Your task to perform on an android device: turn pop-ups off in chrome Image 0: 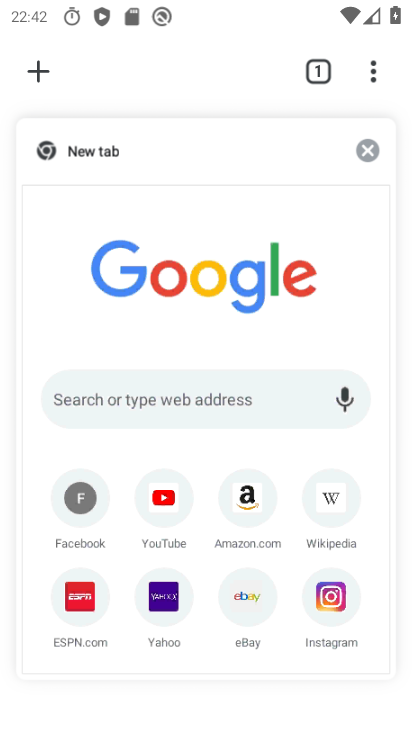
Step 0: press home button
Your task to perform on an android device: turn pop-ups off in chrome Image 1: 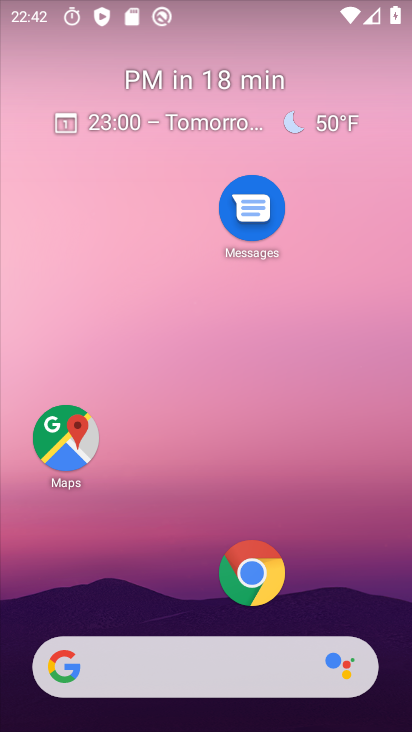
Step 1: click (263, 571)
Your task to perform on an android device: turn pop-ups off in chrome Image 2: 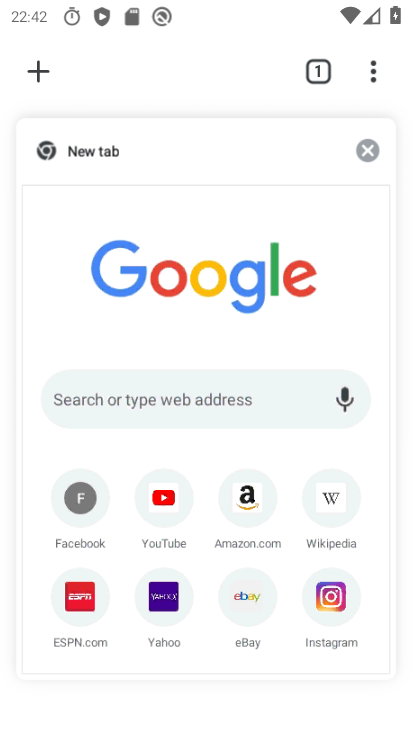
Step 2: press back button
Your task to perform on an android device: turn pop-ups off in chrome Image 3: 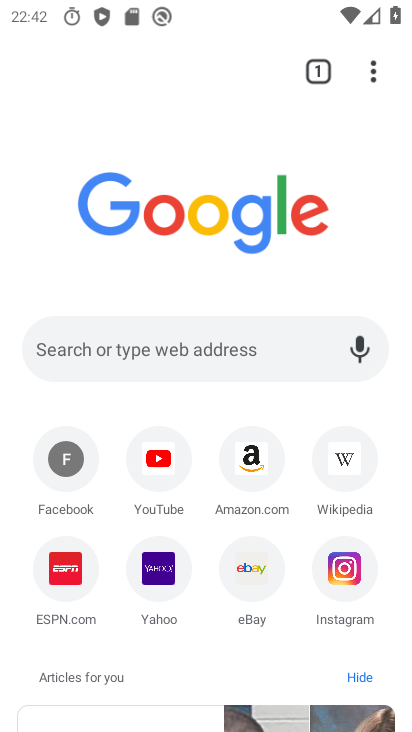
Step 3: click (366, 63)
Your task to perform on an android device: turn pop-ups off in chrome Image 4: 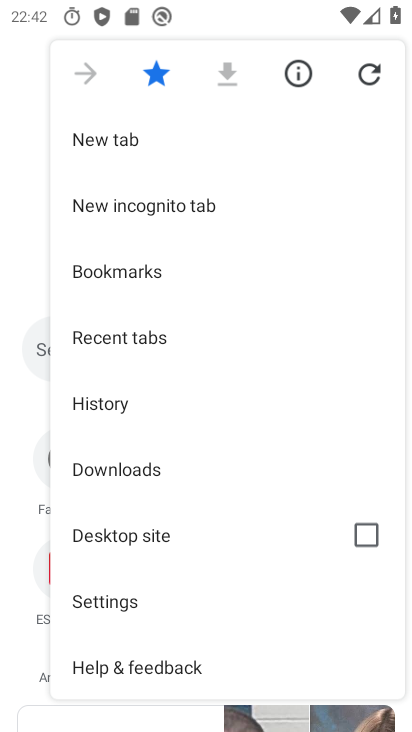
Step 4: click (89, 607)
Your task to perform on an android device: turn pop-ups off in chrome Image 5: 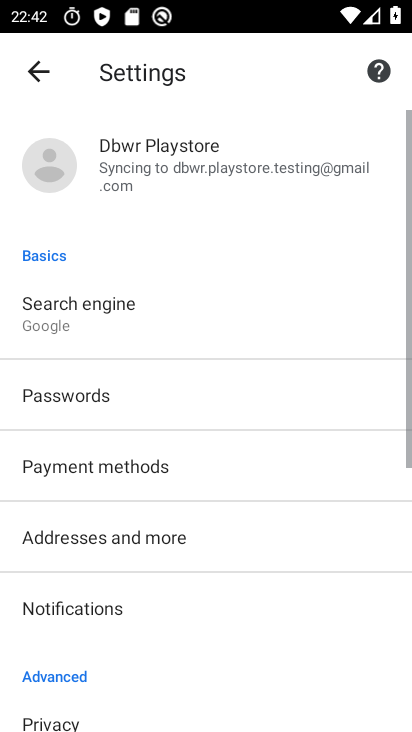
Step 5: drag from (244, 567) to (200, 110)
Your task to perform on an android device: turn pop-ups off in chrome Image 6: 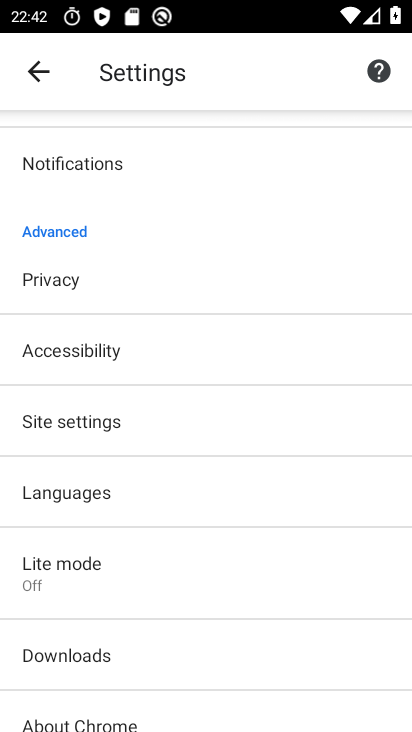
Step 6: click (91, 408)
Your task to perform on an android device: turn pop-ups off in chrome Image 7: 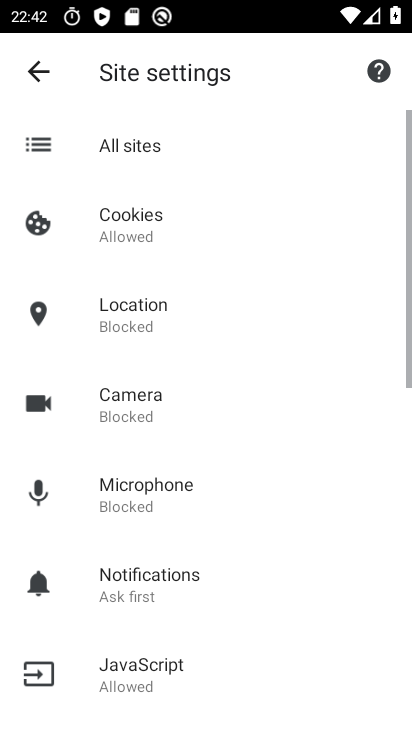
Step 7: drag from (234, 589) to (179, 236)
Your task to perform on an android device: turn pop-ups off in chrome Image 8: 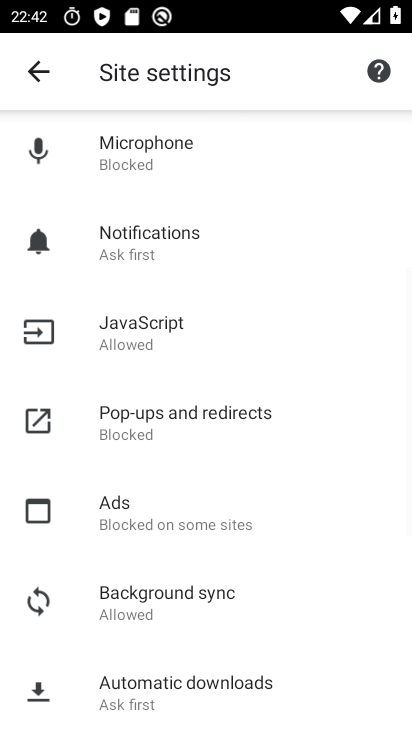
Step 8: click (137, 420)
Your task to perform on an android device: turn pop-ups off in chrome Image 9: 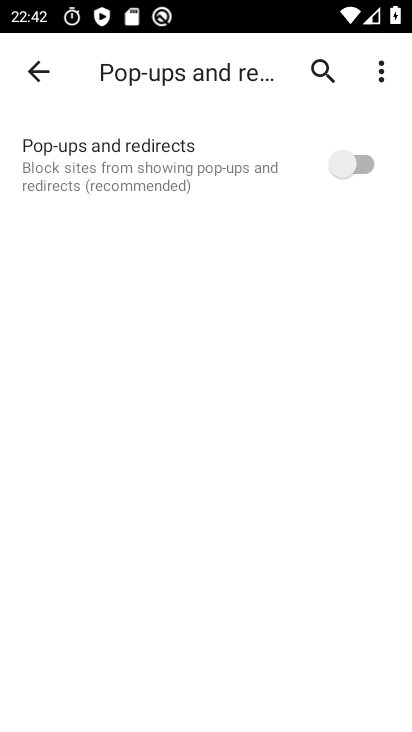
Step 9: task complete